Your task to perform on an android device: Go to Android settings Image 0: 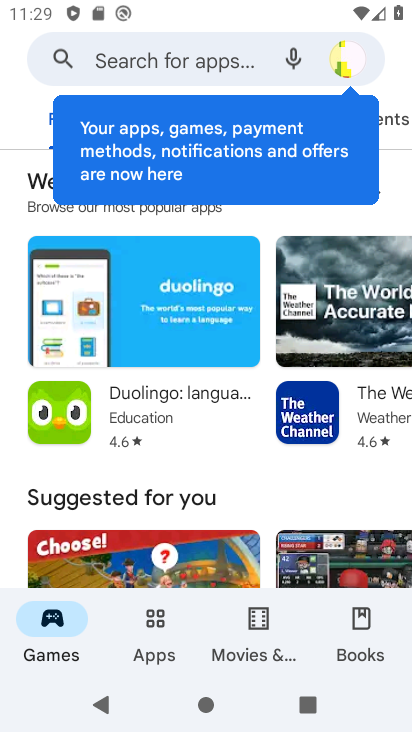
Step 0: press home button
Your task to perform on an android device: Go to Android settings Image 1: 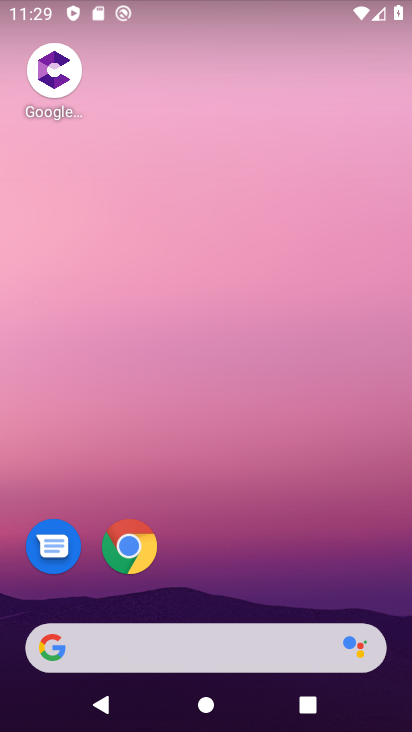
Step 1: drag from (258, 473) to (39, 353)
Your task to perform on an android device: Go to Android settings Image 2: 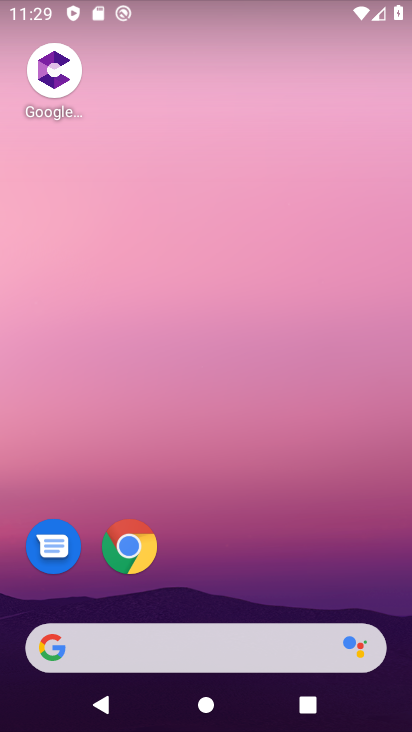
Step 2: drag from (228, 531) to (254, 31)
Your task to perform on an android device: Go to Android settings Image 3: 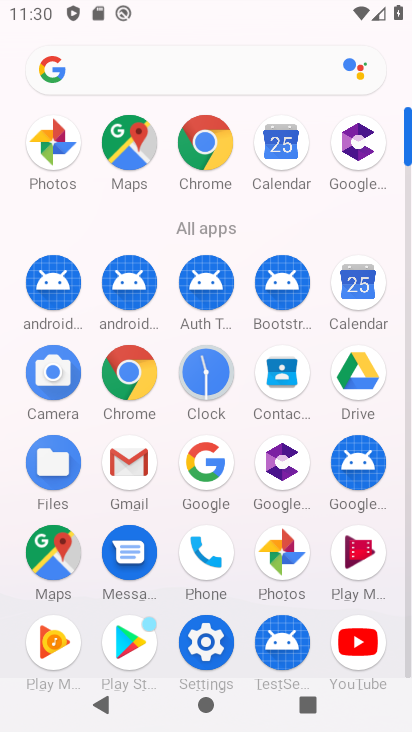
Step 3: click (208, 641)
Your task to perform on an android device: Go to Android settings Image 4: 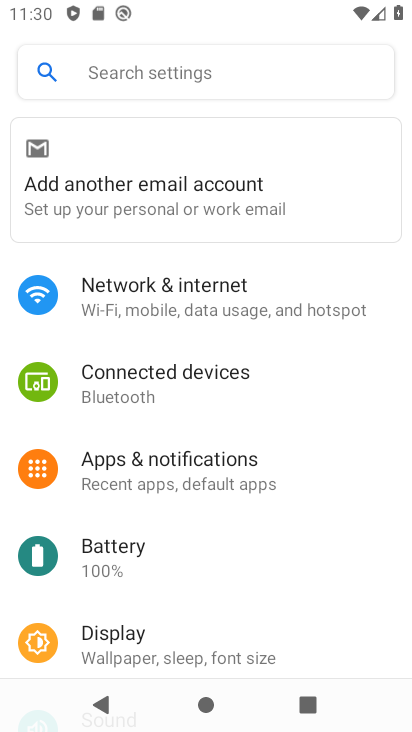
Step 4: drag from (236, 501) to (258, 31)
Your task to perform on an android device: Go to Android settings Image 5: 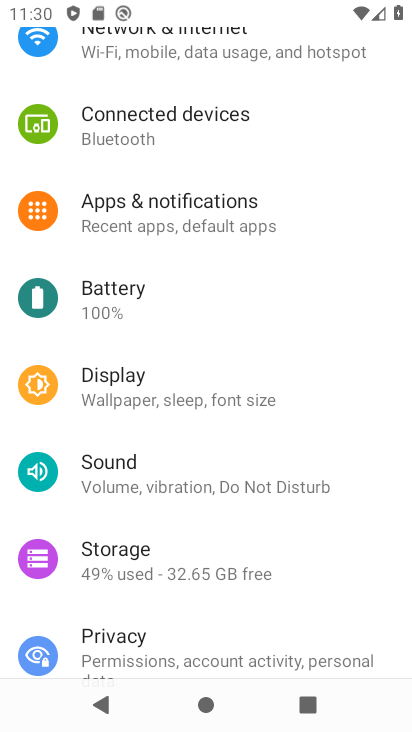
Step 5: drag from (194, 623) to (220, 101)
Your task to perform on an android device: Go to Android settings Image 6: 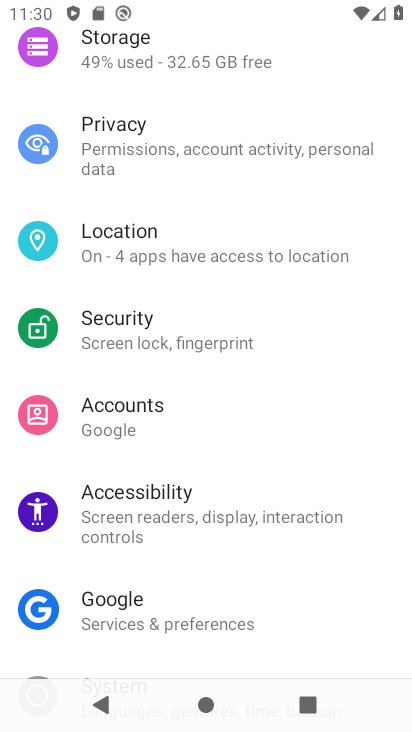
Step 6: drag from (161, 619) to (229, 190)
Your task to perform on an android device: Go to Android settings Image 7: 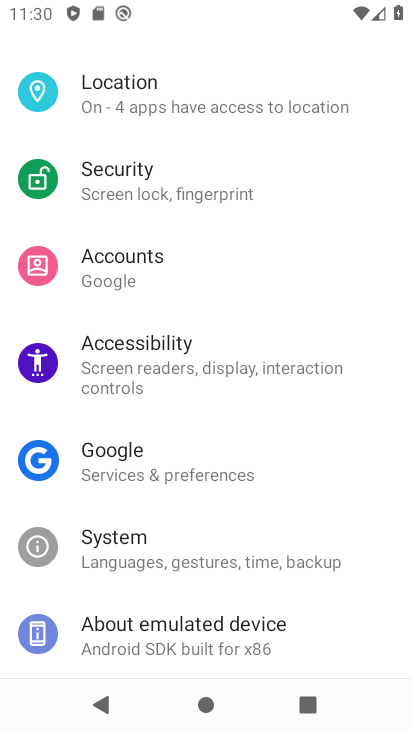
Step 7: click (144, 548)
Your task to perform on an android device: Go to Android settings Image 8: 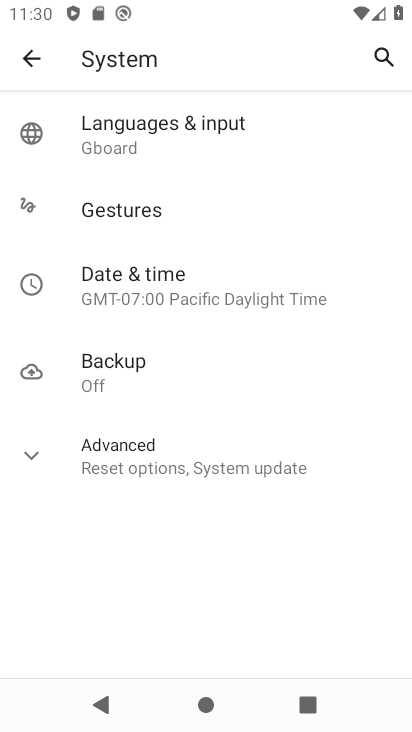
Step 8: task complete